Your task to perform on an android device: Go to network settings Image 0: 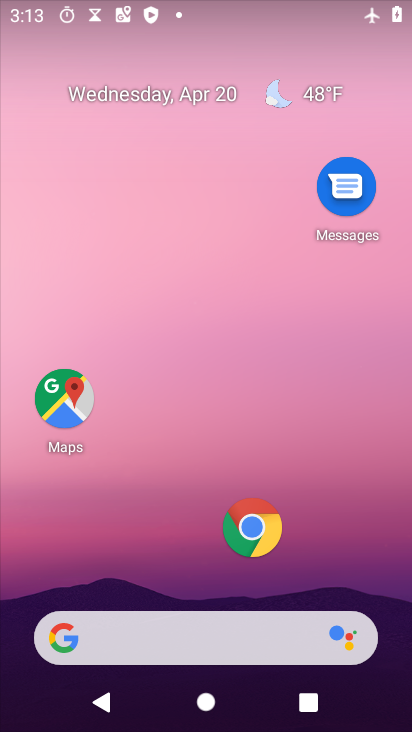
Step 0: drag from (123, 638) to (250, 207)
Your task to perform on an android device: Go to network settings Image 1: 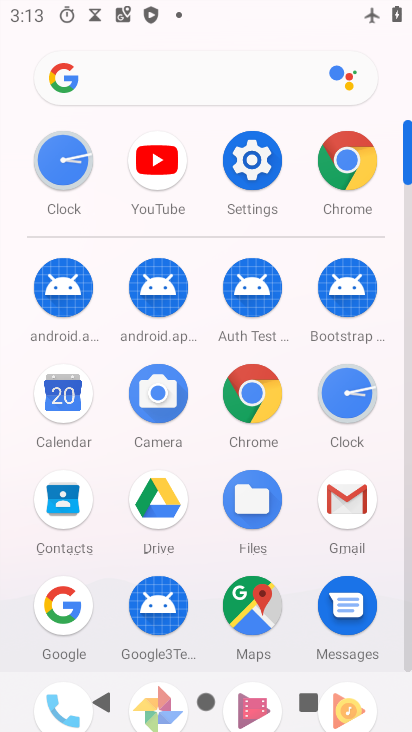
Step 1: click (249, 170)
Your task to perform on an android device: Go to network settings Image 2: 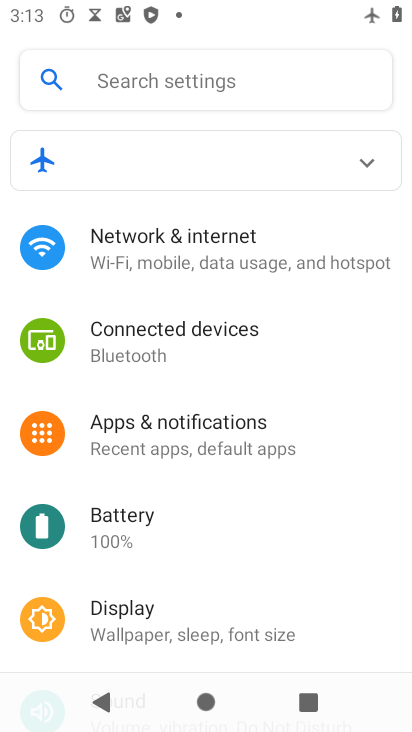
Step 2: click (200, 251)
Your task to perform on an android device: Go to network settings Image 3: 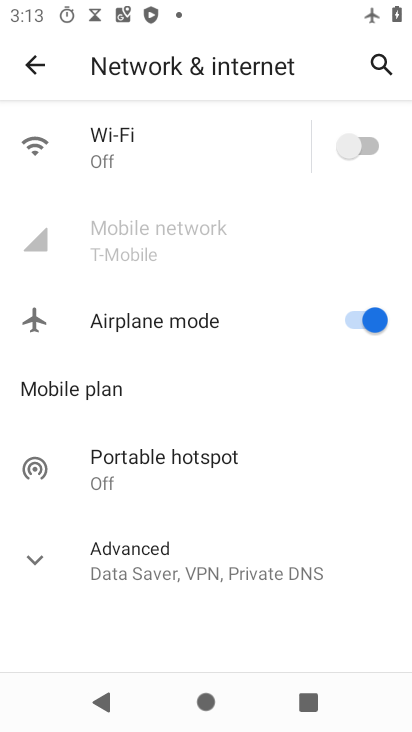
Step 3: task complete